Your task to perform on an android device: add a contact in the contacts app Image 0: 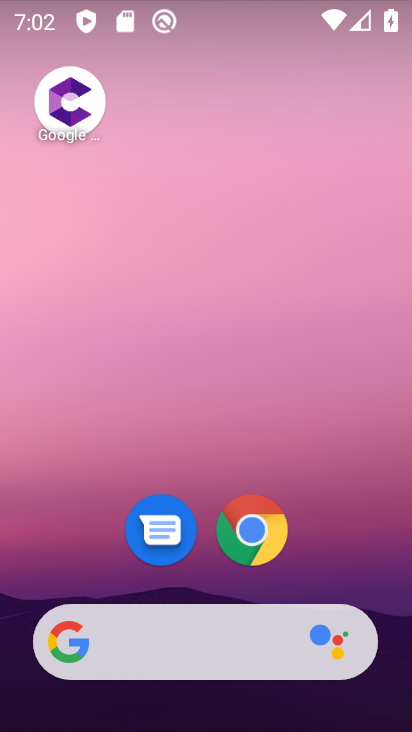
Step 0: press home button
Your task to perform on an android device: add a contact in the contacts app Image 1: 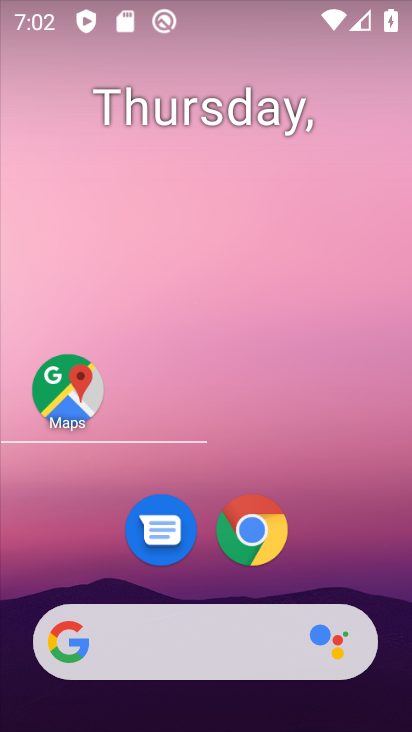
Step 1: drag from (211, 691) to (205, 254)
Your task to perform on an android device: add a contact in the contacts app Image 2: 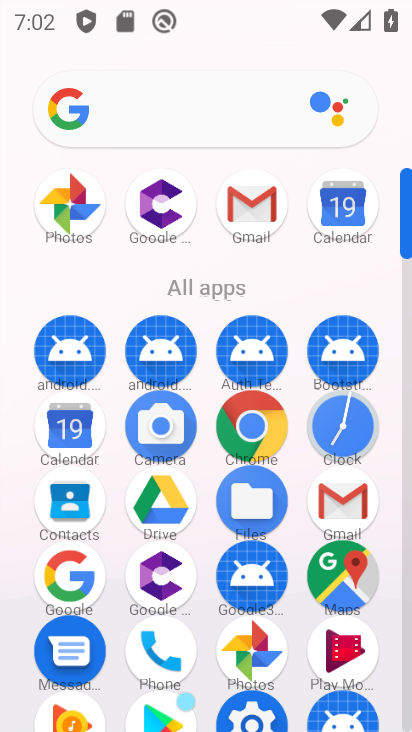
Step 2: click (160, 666)
Your task to perform on an android device: add a contact in the contacts app Image 3: 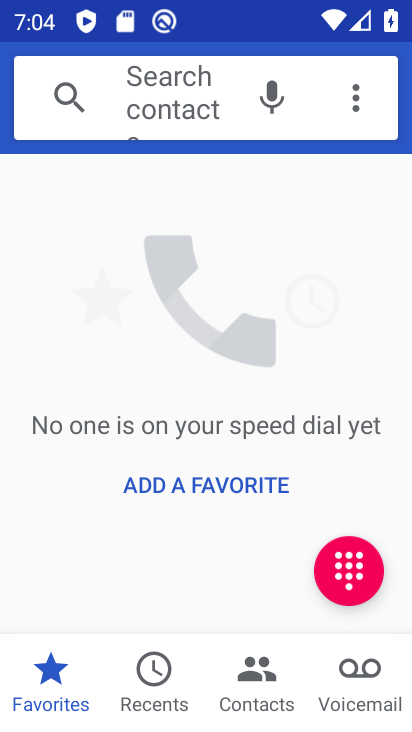
Step 3: click (251, 662)
Your task to perform on an android device: add a contact in the contacts app Image 4: 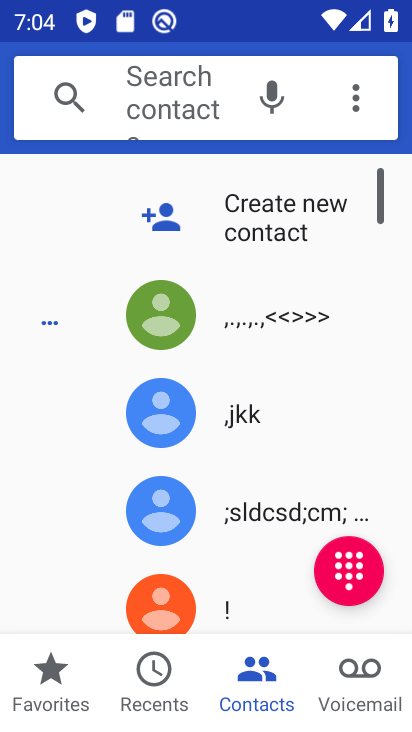
Step 4: click (232, 227)
Your task to perform on an android device: add a contact in the contacts app Image 5: 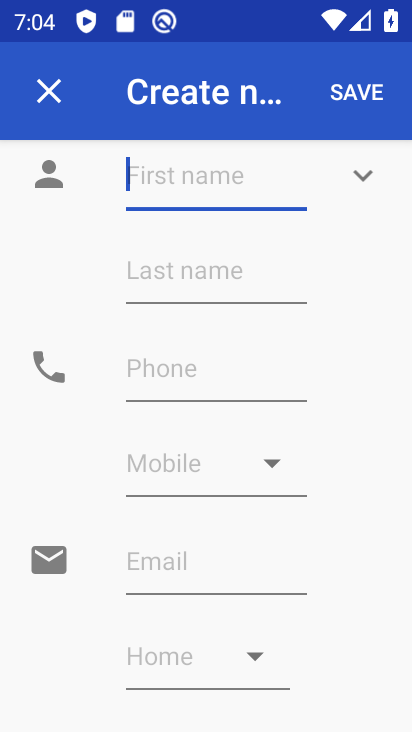
Step 5: click (134, 182)
Your task to perform on an android device: add a contact in the contacts app Image 6: 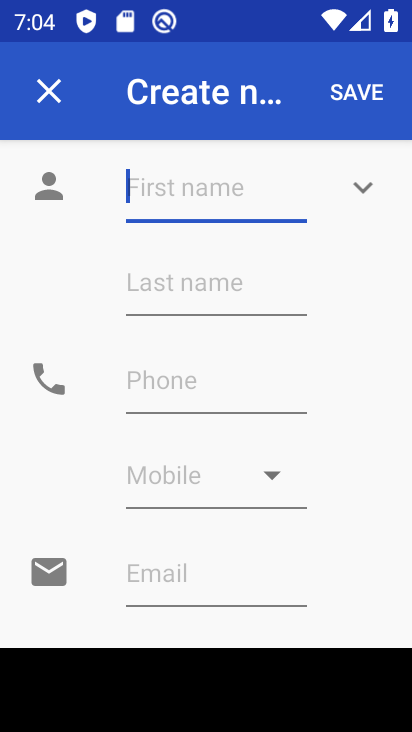
Step 6: click (306, 458)
Your task to perform on an android device: add a contact in the contacts app Image 7: 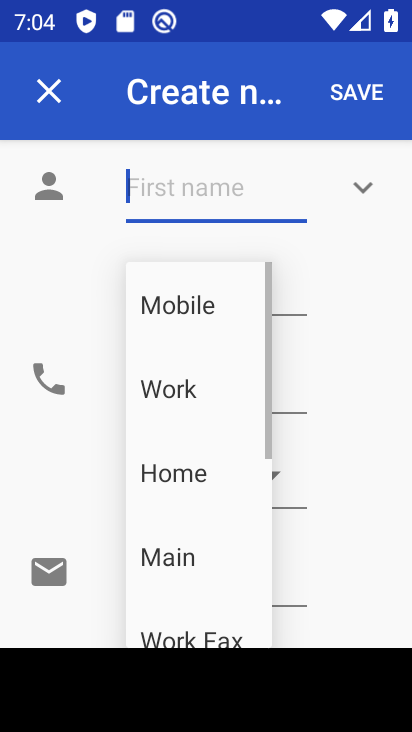
Step 7: click (386, 691)
Your task to perform on an android device: add a contact in the contacts app Image 8: 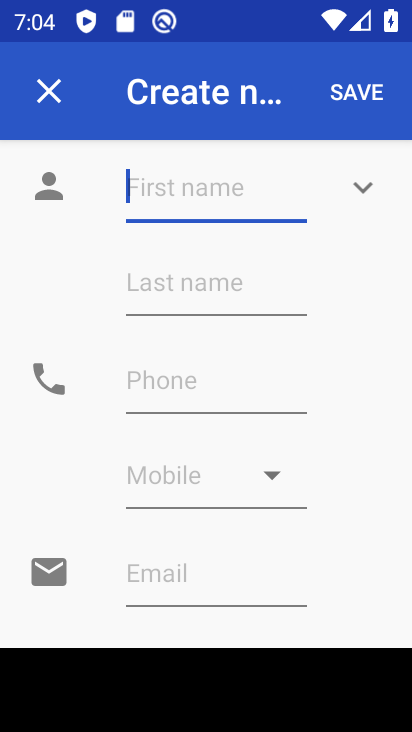
Step 8: drag from (380, 675) to (346, 572)
Your task to perform on an android device: add a contact in the contacts app Image 9: 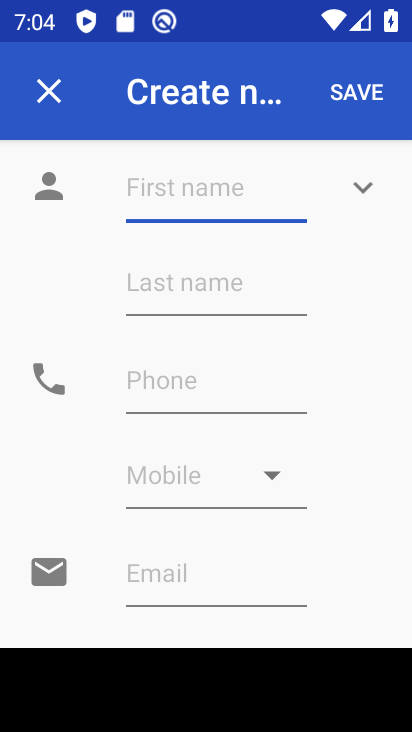
Step 9: drag from (339, 542) to (305, 387)
Your task to perform on an android device: add a contact in the contacts app Image 10: 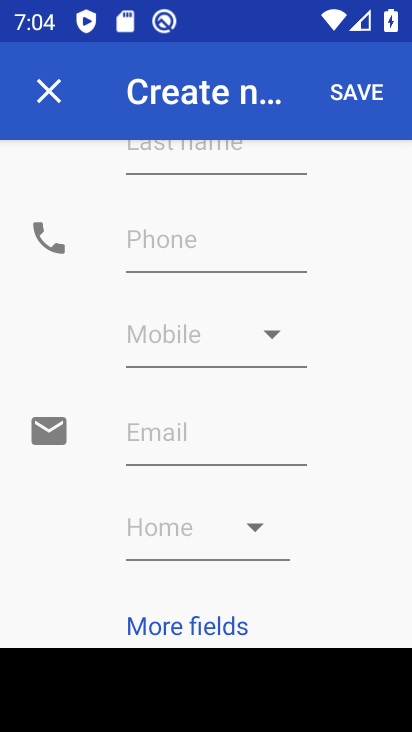
Step 10: drag from (172, 235) to (211, 432)
Your task to perform on an android device: add a contact in the contacts app Image 11: 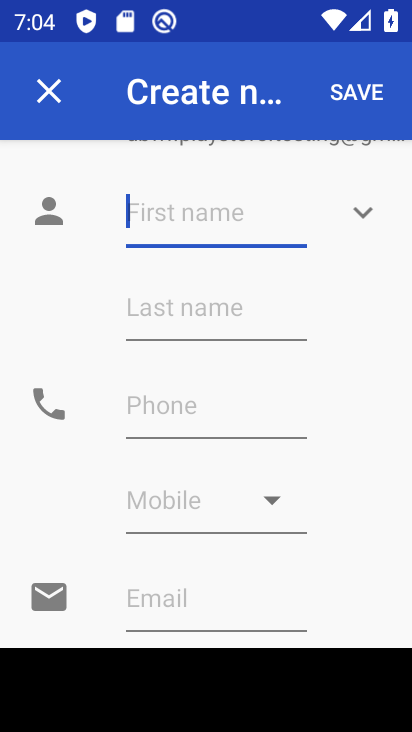
Step 11: click (178, 214)
Your task to perform on an android device: add a contact in the contacts app Image 12: 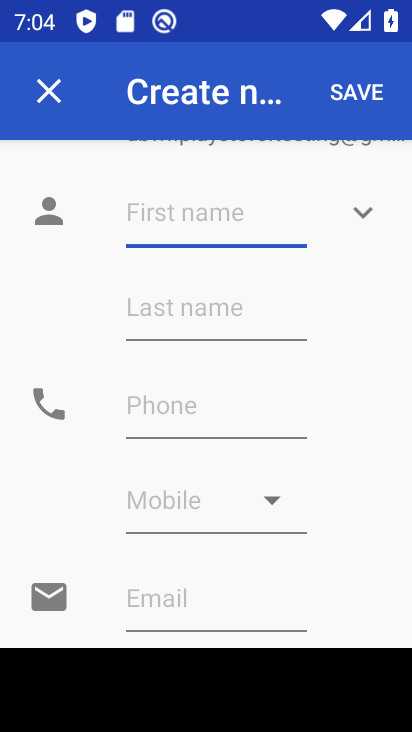
Step 12: drag from (371, 694) to (318, 533)
Your task to perform on an android device: add a contact in the contacts app Image 13: 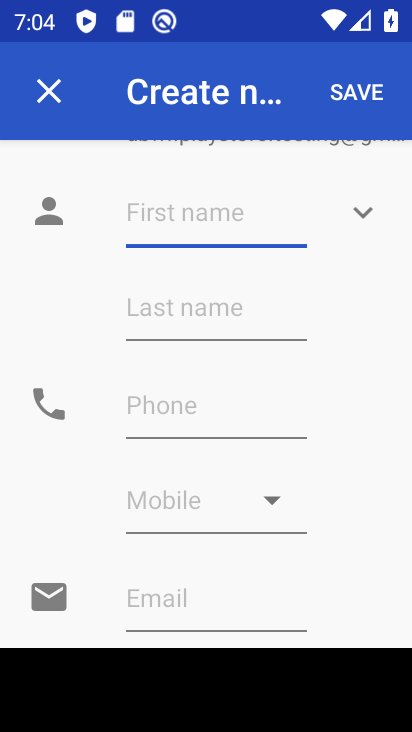
Step 13: click (388, 698)
Your task to perform on an android device: add a contact in the contacts app Image 14: 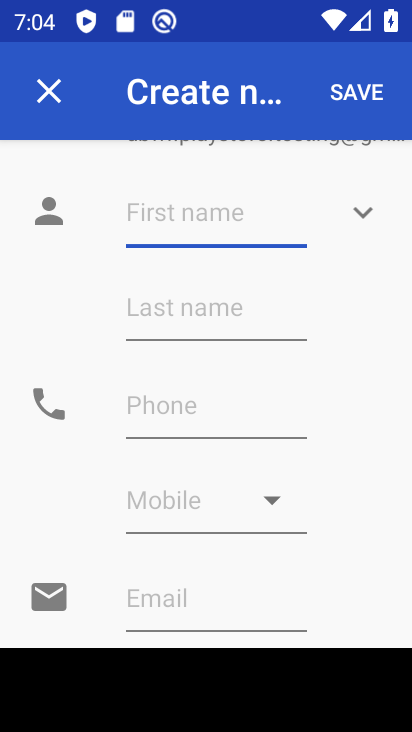
Step 14: click (388, 698)
Your task to perform on an android device: add a contact in the contacts app Image 15: 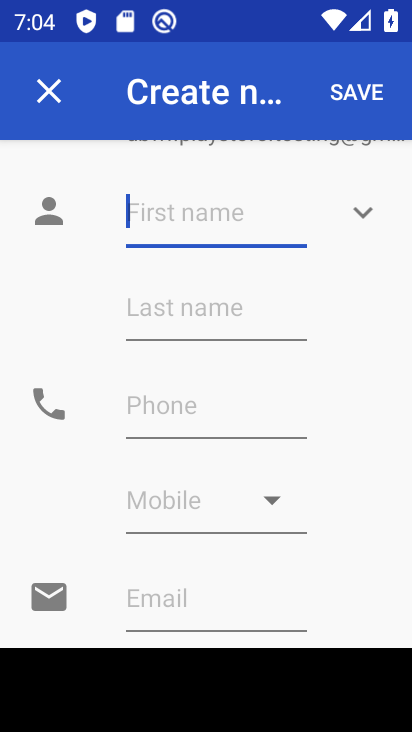
Step 15: drag from (388, 677) to (337, 404)
Your task to perform on an android device: add a contact in the contacts app Image 16: 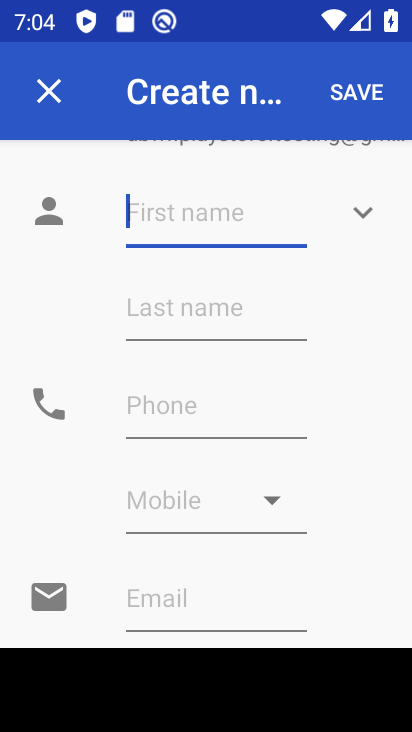
Step 16: drag from (390, 689) to (344, 418)
Your task to perform on an android device: add a contact in the contacts app Image 17: 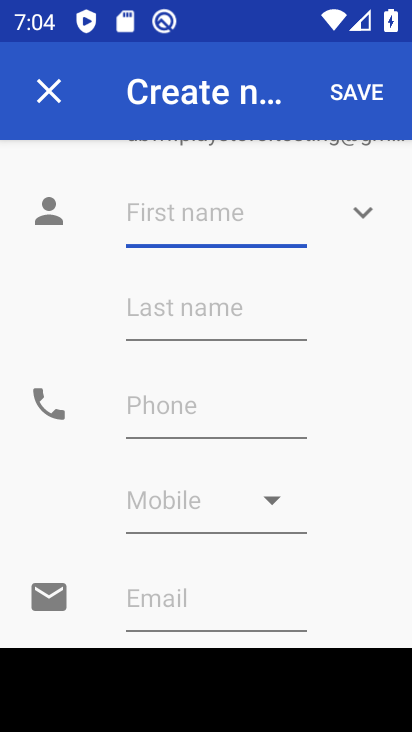
Step 17: drag from (351, 693) to (312, 561)
Your task to perform on an android device: add a contact in the contacts app Image 18: 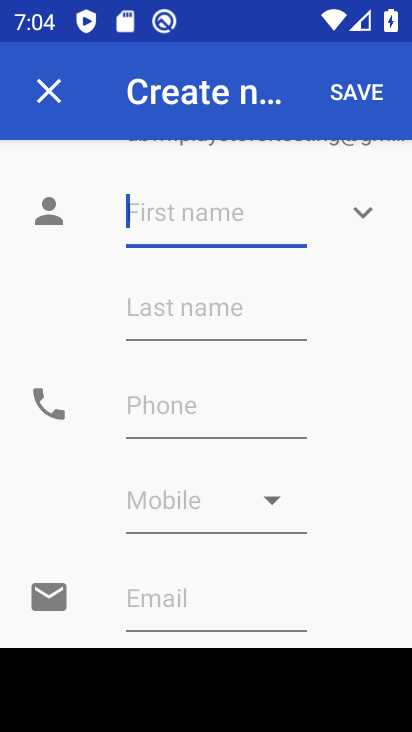
Step 18: drag from (383, 705) to (364, 607)
Your task to perform on an android device: add a contact in the contacts app Image 19: 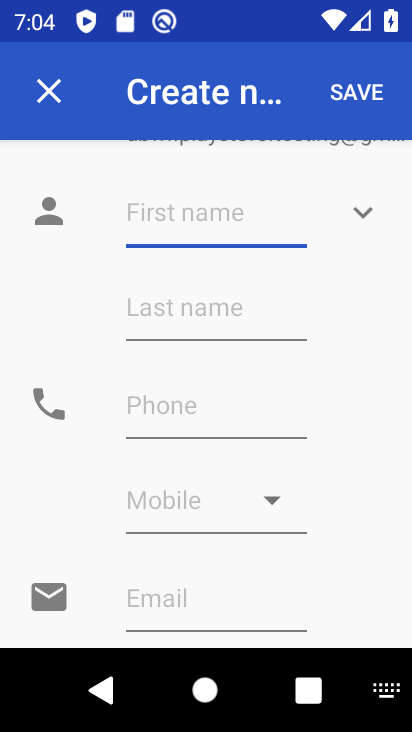
Step 19: click (391, 701)
Your task to perform on an android device: add a contact in the contacts app Image 20: 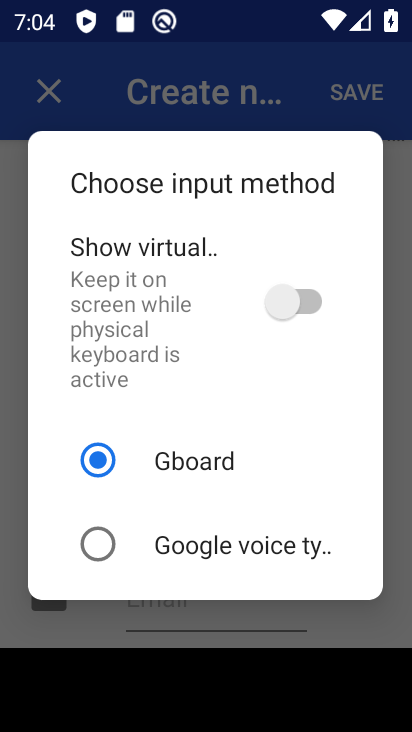
Step 20: click (300, 295)
Your task to perform on an android device: add a contact in the contacts app Image 21: 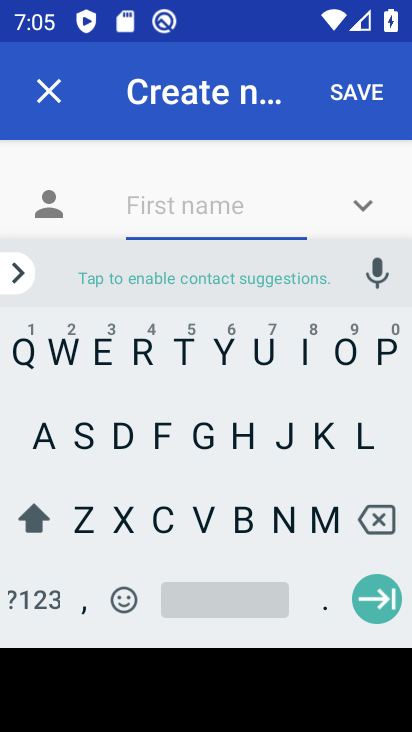
Step 21: click (163, 444)
Your task to perform on an android device: add a contact in the contacts app Image 22: 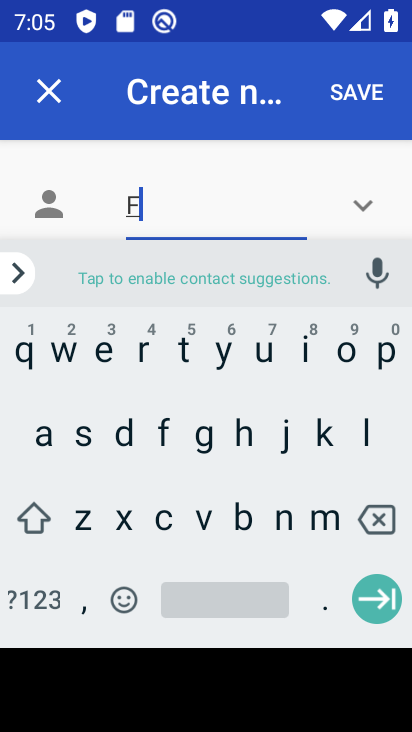
Step 22: click (213, 510)
Your task to perform on an android device: add a contact in the contacts app Image 23: 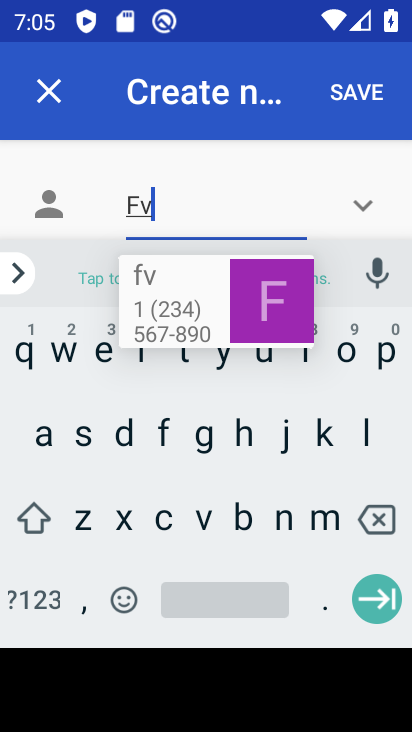
Step 23: click (313, 453)
Your task to perform on an android device: add a contact in the contacts app Image 24: 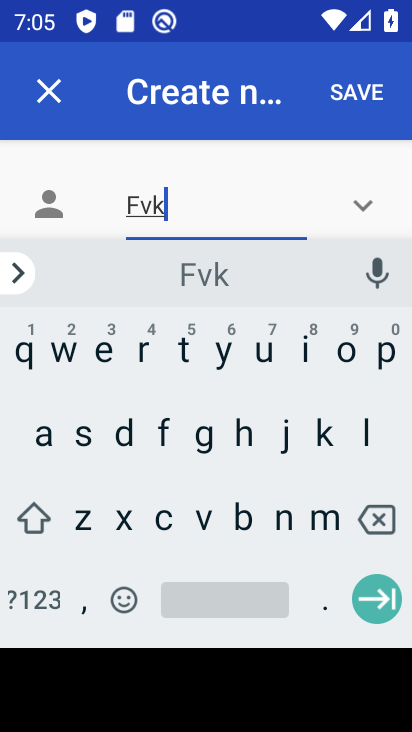
Step 24: drag from (264, 194) to (281, 100)
Your task to perform on an android device: add a contact in the contacts app Image 25: 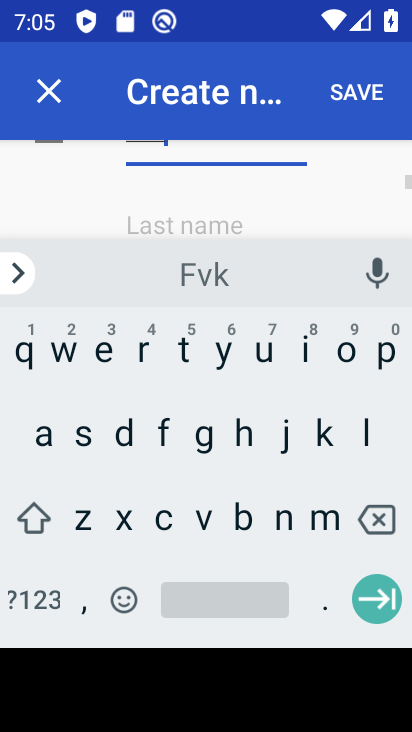
Step 25: drag from (190, 208) to (242, 82)
Your task to perform on an android device: add a contact in the contacts app Image 26: 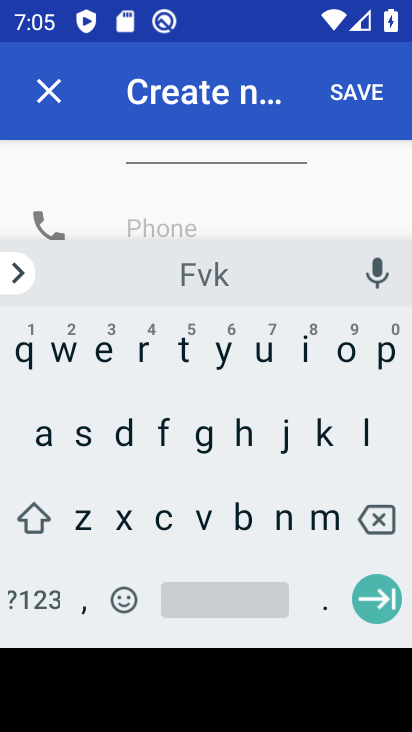
Step 26: click (136, 216)
Your task to perform on an android device: add a contact in the contacts app Image 27: 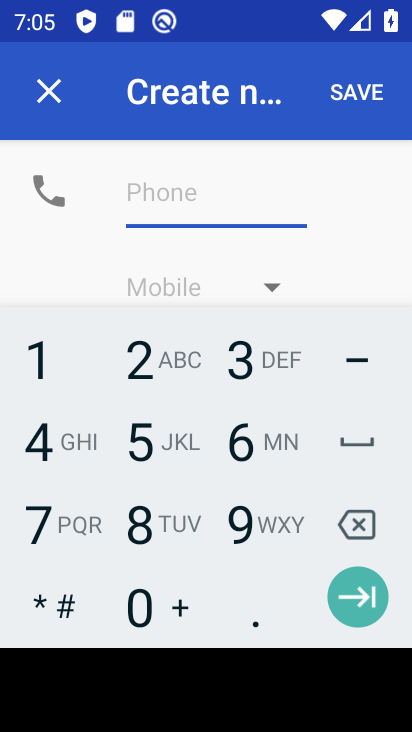
Step 27: click (149, 382)
Your task to perform on an android device: add a contact in the contacts app Image 28: 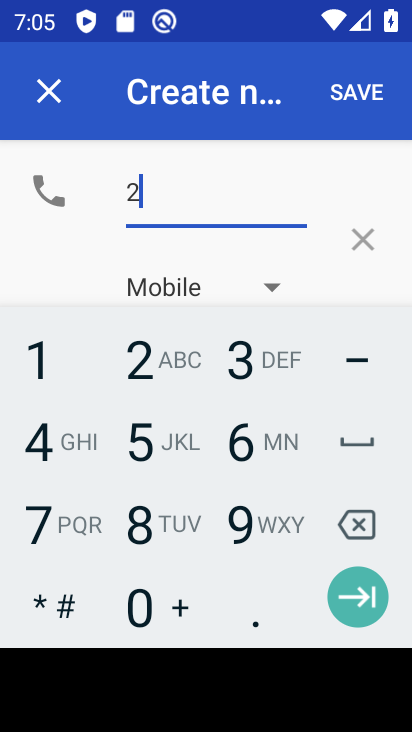
Step 28: click (123, 425)
Your task to perform on an android device: add a contact in the contacts app Image 29: 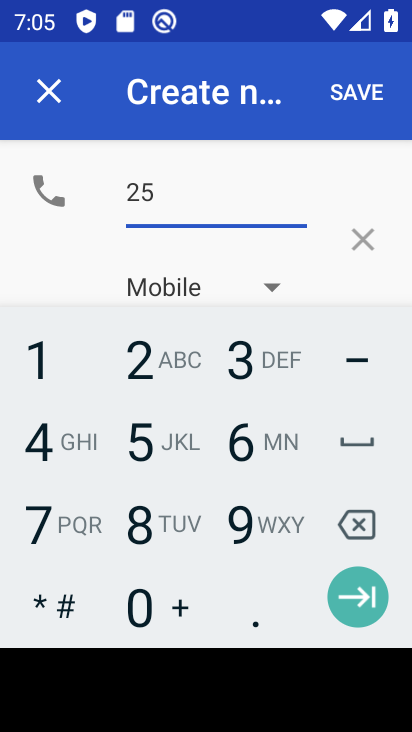
Step 29: click (33, 452)
Your task to perform on an android device: add a contact in the contacts app Image 30: 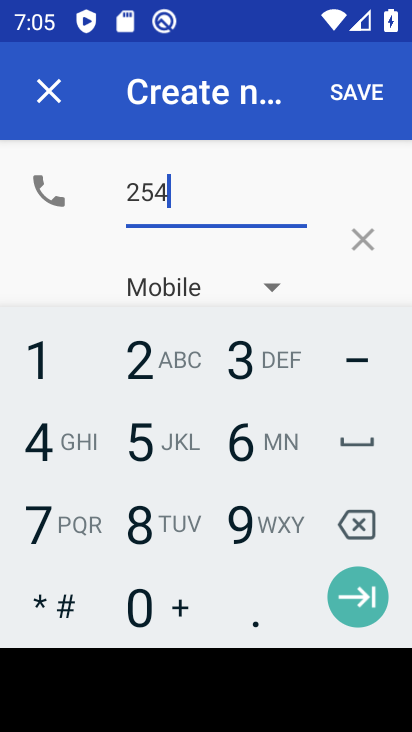
Step 30: click (50, 508)
Your task to perform on an android device: add a contact in the contacts app Image 31: 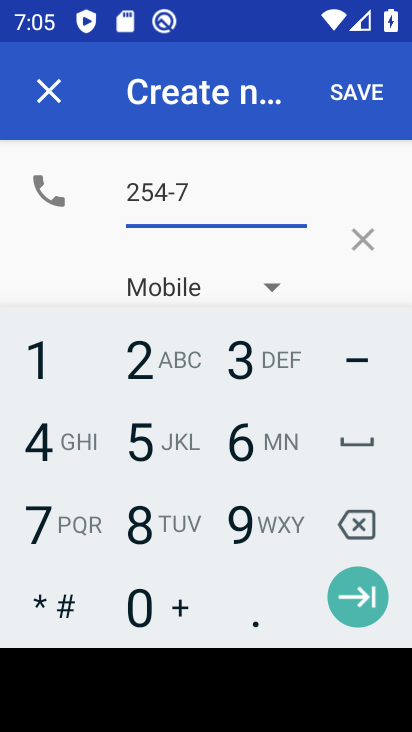
Step 31: click (353, 97)
Your task to perform on an android device: add a contact in the contacts app Image 32: 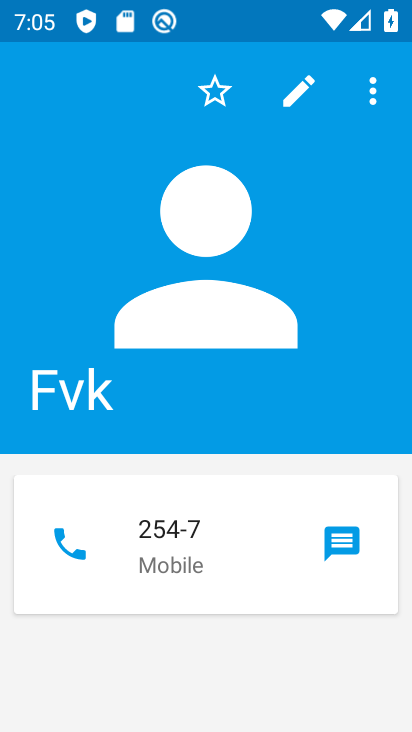
Step 32: task complete